Your task to perform on an android device: turn off airplane mode Image 0: 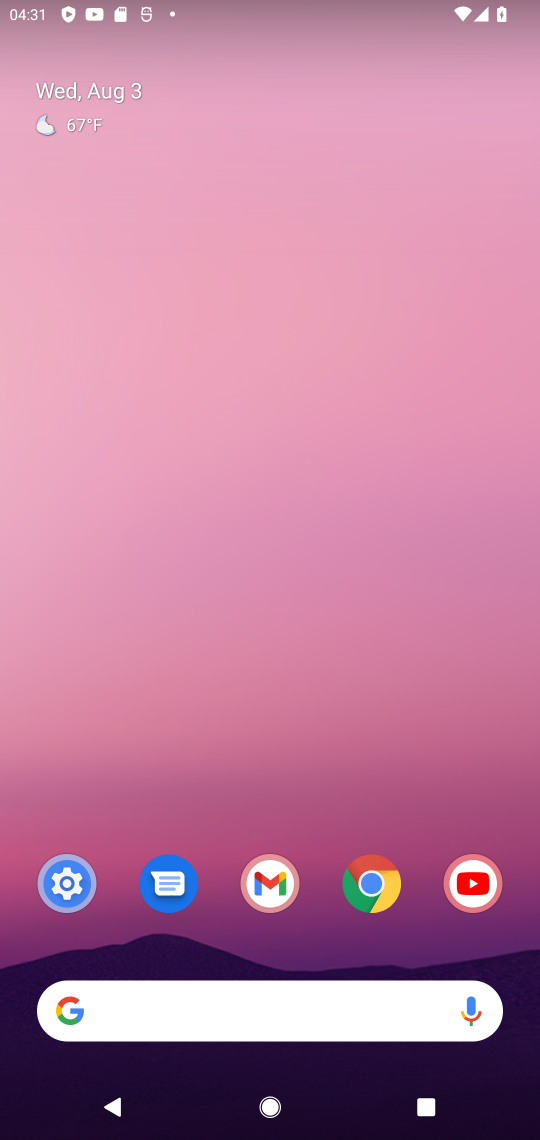
Step 0: click (77, 899)
Your task to perform on an android device: turn off airplane mode Image 1: 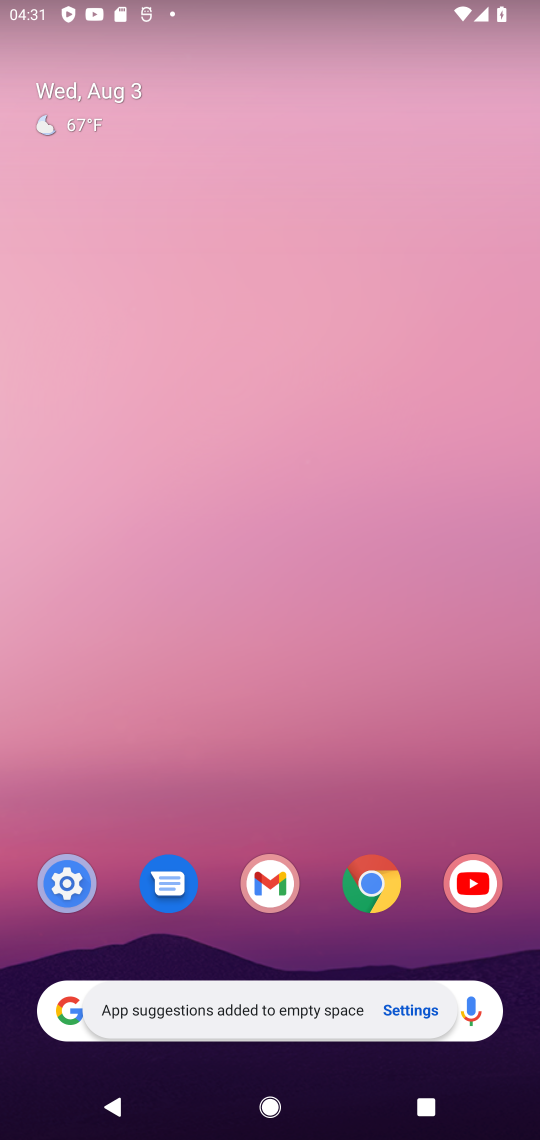
Step 1: click (69, 876)
Your task to perform on an android device: turn off airplane mode Image 2: 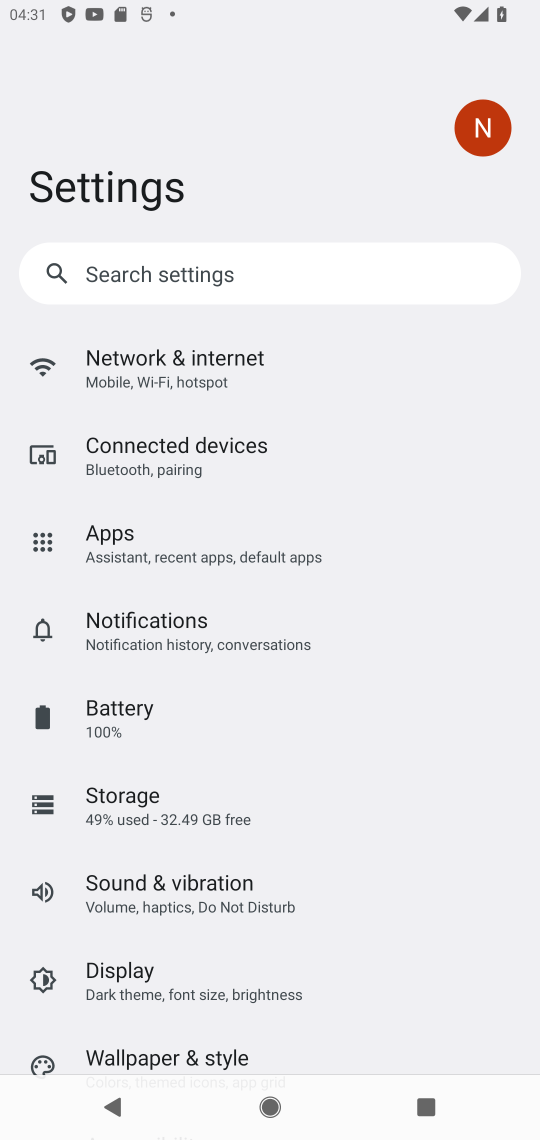
Step 2: click (217, 376)
Your task to perform on an android device: turn off airplane mode Image 3: 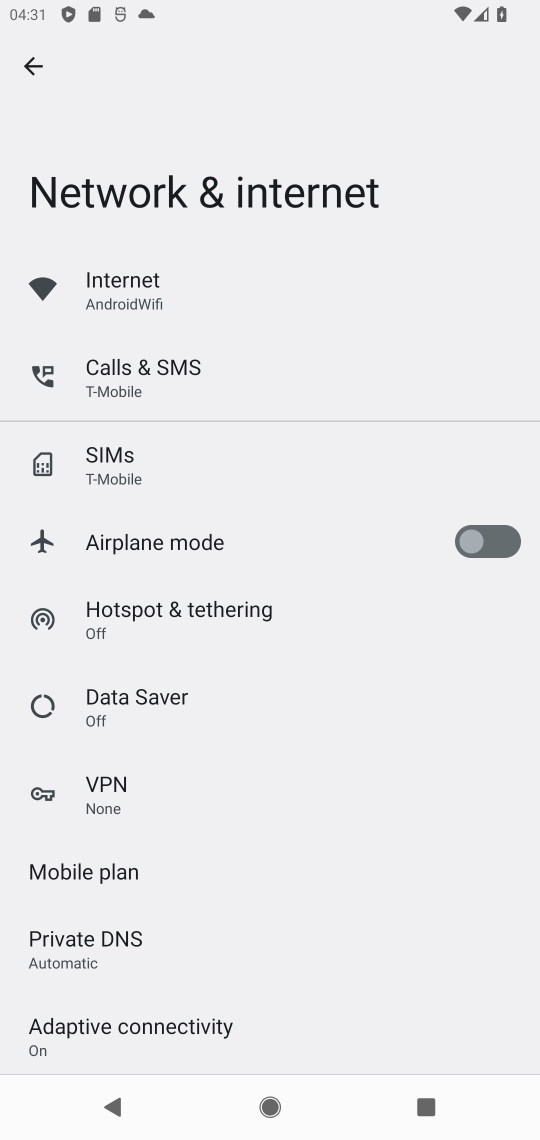
Step 3: task complete